Your task to perform on an android device: turn on location history Image 0: 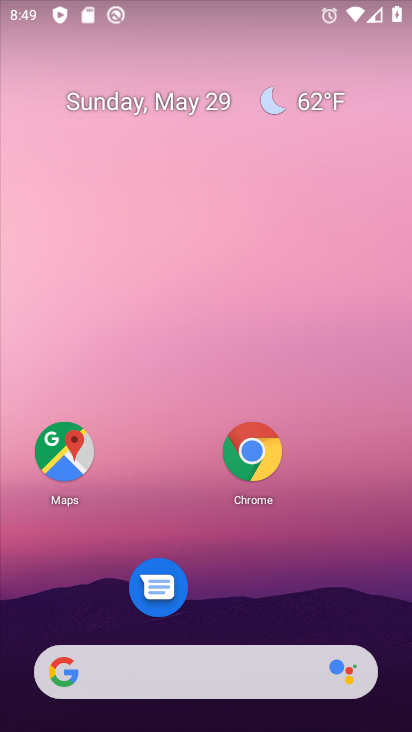
Step 0: drag from (392, 605) to (248, 61)
Your task to perform on an android device: turn on location history Image 1: 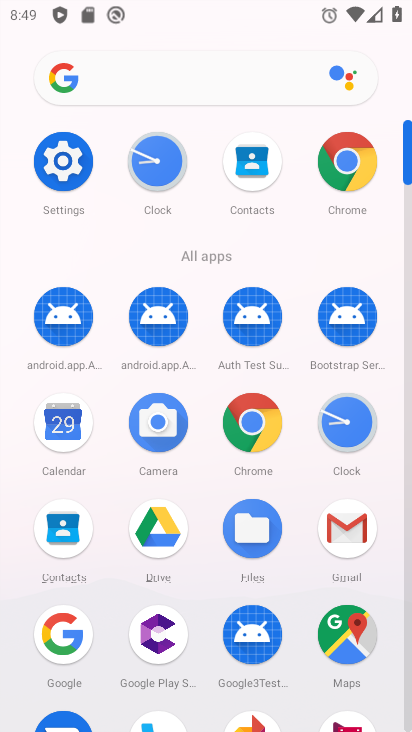
Step 1: click (76, 156)
Your task to perform on an android device: turn on location history Image 2: 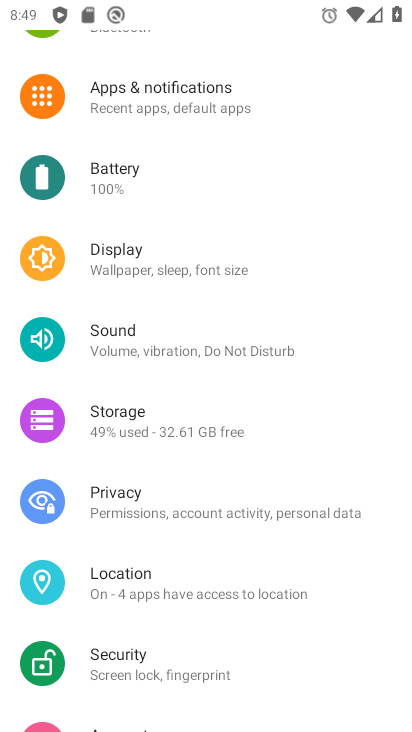
Step 2: click (112, 582)
Your task to perform on an android device: turn on location history Image 3: 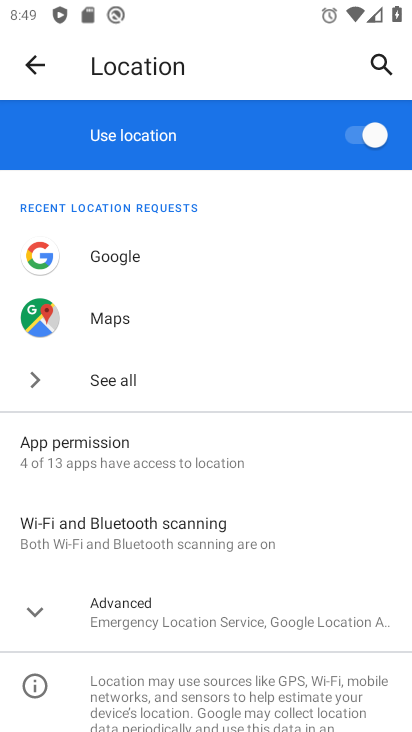
Step 3: click (201, 623)
Your task to perform on an android device: turn on location history Image 4: 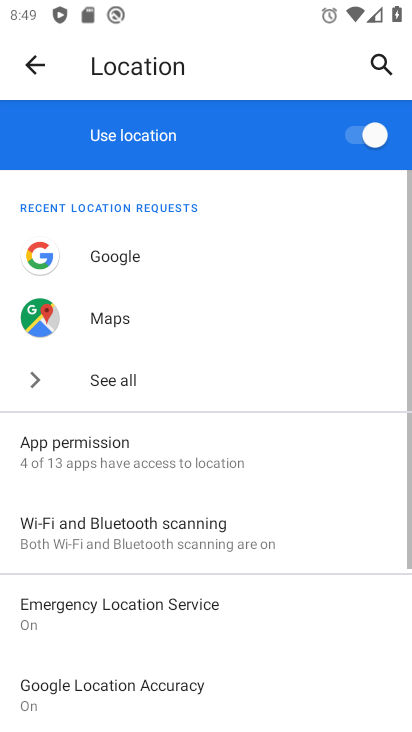
Step 4: drag from (201, 623) to (242, 180)
Your task to perform on an android device: turn on location history Image 5: 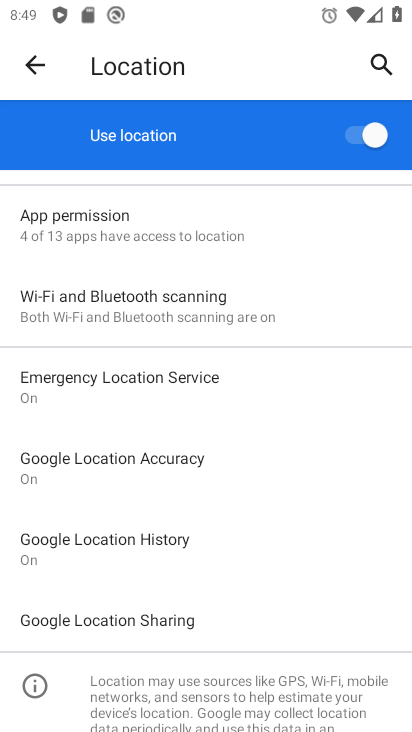
Step 5: click (141, 551)
Your task to perform on an android device: turn on location history Image 6: 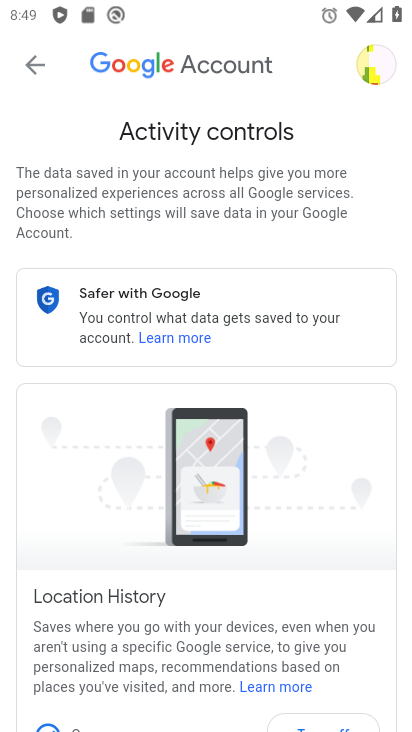
Step 6: task complete